Your task to perform on an android device: Open internet settings Image 0: 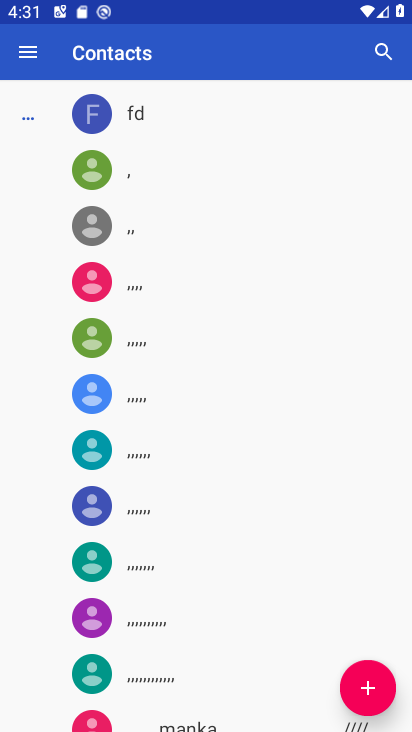
Step 0: press home button
Your task to perform on an android device: Open internet settings Image 1: 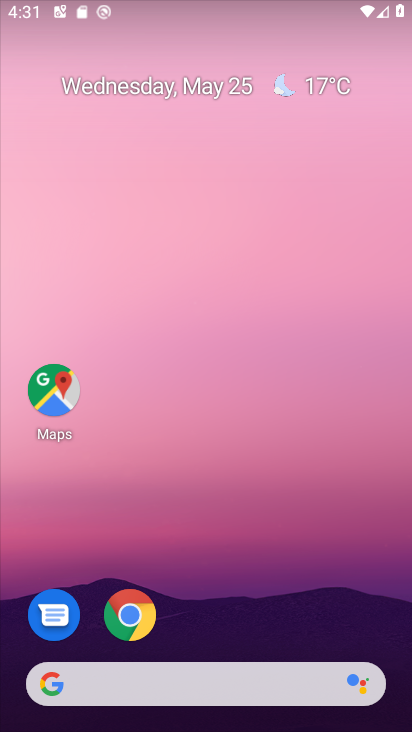
Step 1: drag from (346, 566) to (185, 7)
Your task to perform on an android device: Open internet settings Image 2: 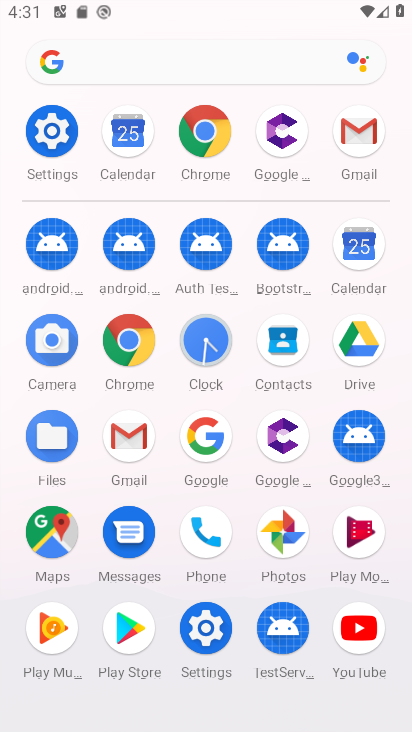
Step 2: click (49, 148)
Your task to perform on an android device: Open internet settings Image 3: 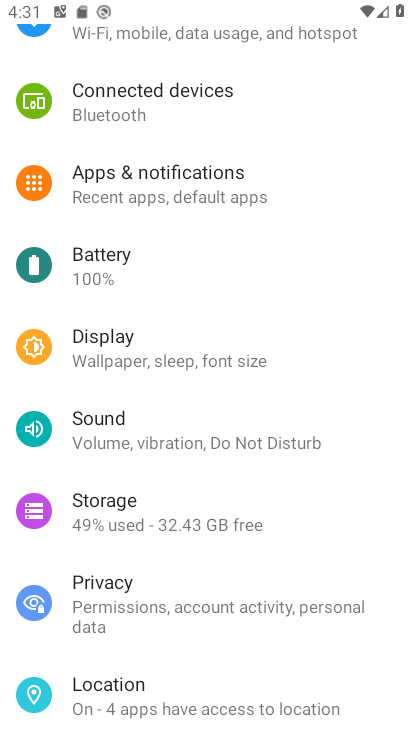
Step 3: click (257, 37)
Your task to perform on an android device: Open internet settings Image 4: 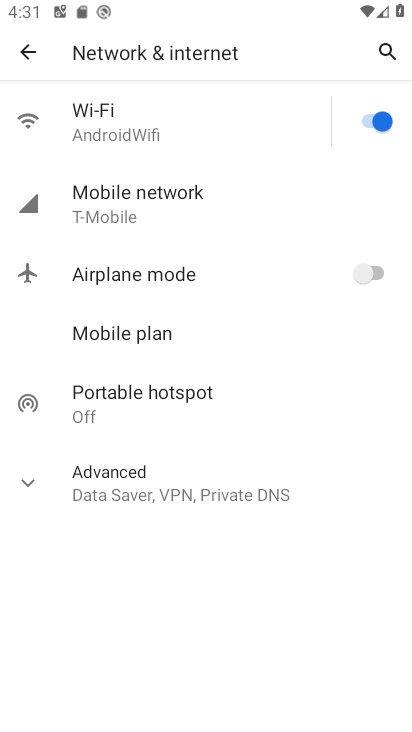
Step 4: task complete